Your task to perform on an android device: Go to battery settings Image 0: 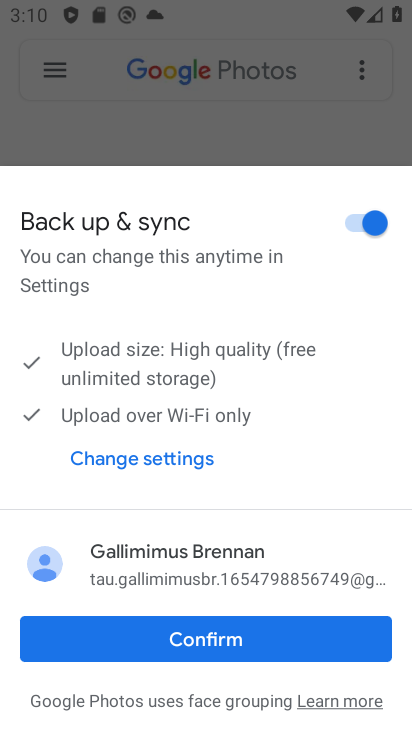
Step 0: press home button
Your task to perform on an android device: Go to battery settings Image 1: 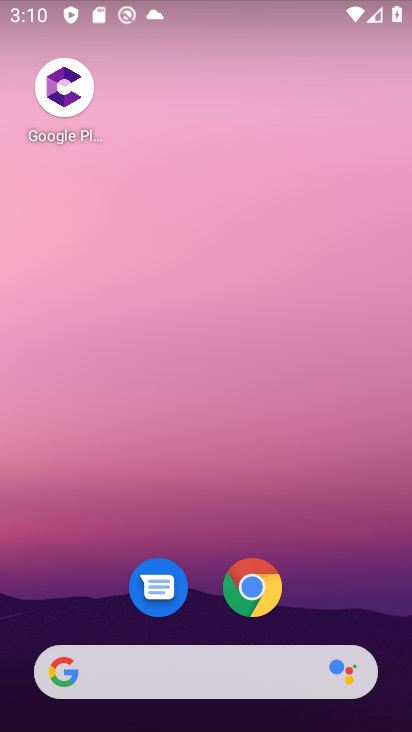
Step 1: drag from (60, 631) to (189, 102)
Your task to perform on an android device: Go to battery settings Image 2: 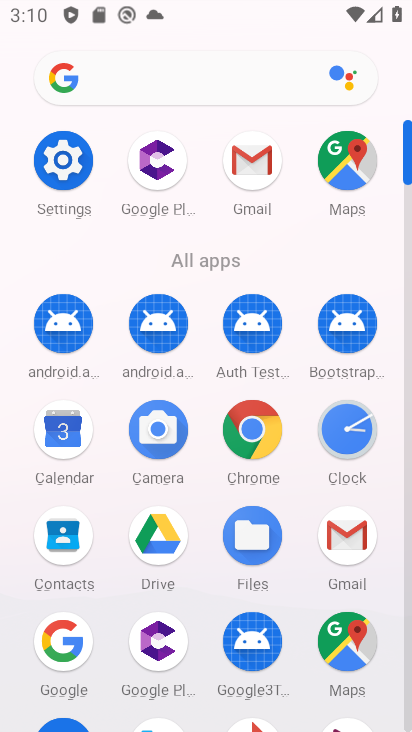
Step 2: click (79, 176)
Your task to perform on an android device: Go to battery settings Image 3: 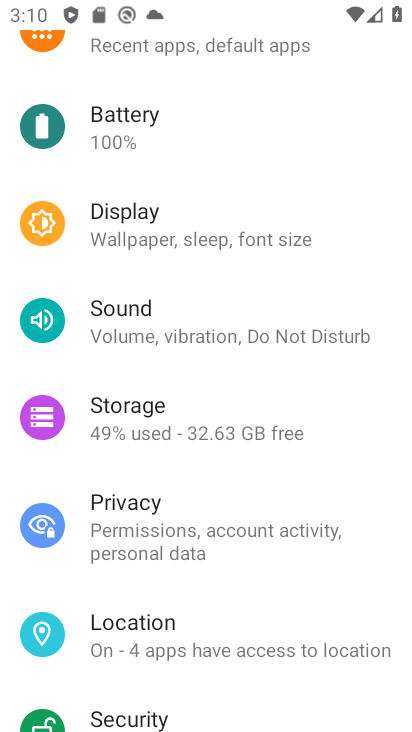
Step 3: click (139, 138)
Your task to perform on an android device: Go to battery settings Image 4: 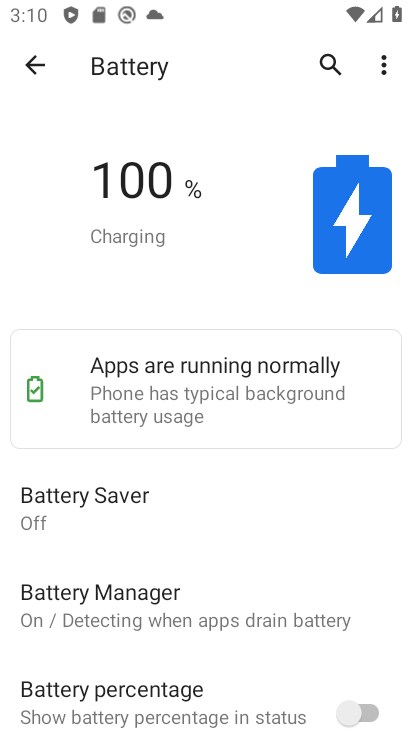
Step 4: task complete